Your task to perform on an android device: uninstall "Facebook Lite" Image 0: 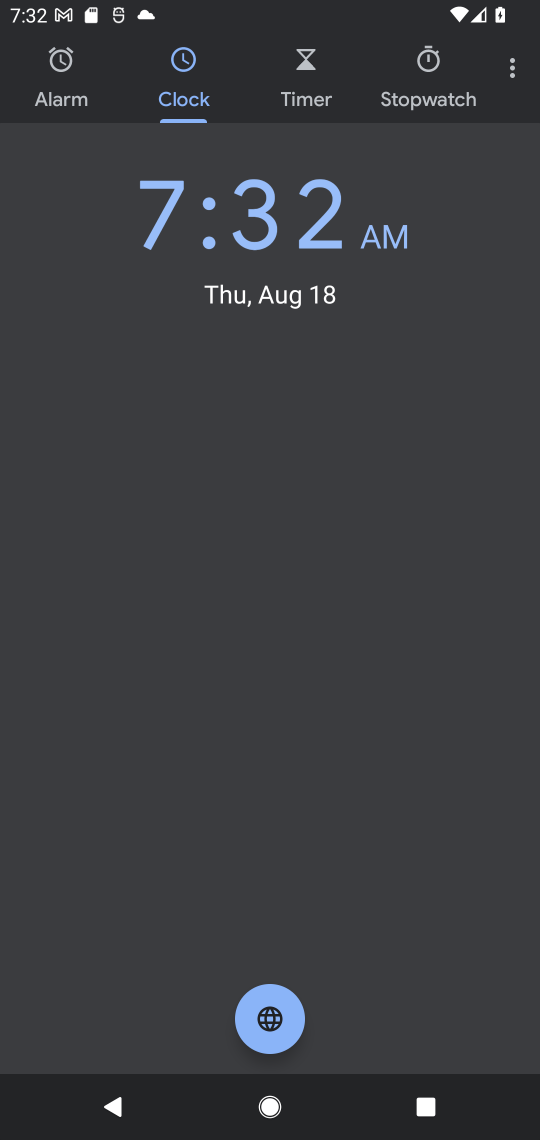
Step 0: press home button
Your task to perform on an android device: uninstall "Facebook Lite" Image 1: 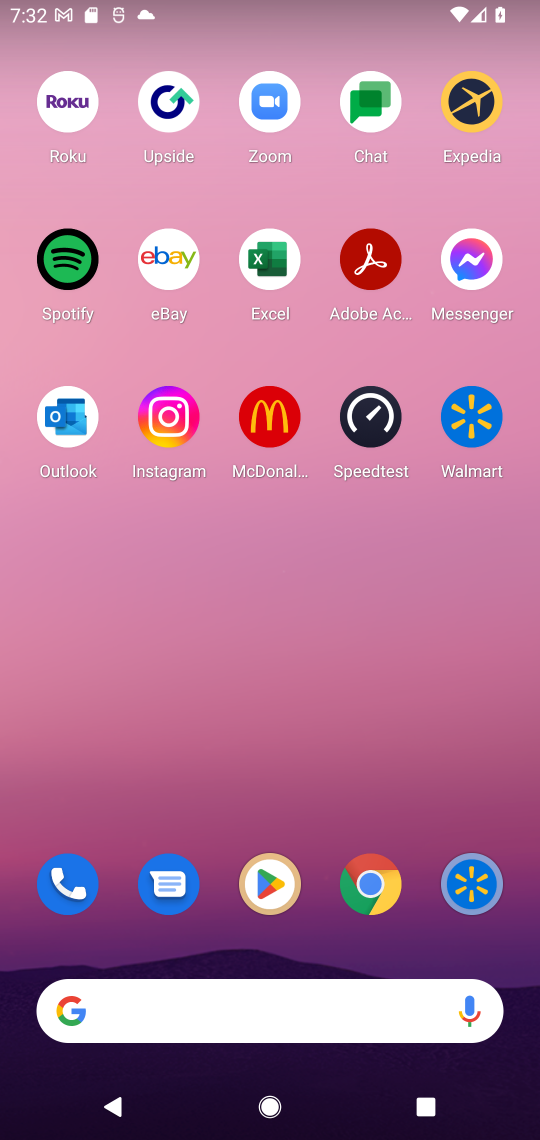
Step 1: drag from (222, 1013) to (391, 144)
Your task to perform on an android device: uninstall "Facebook Lite" Image 2: 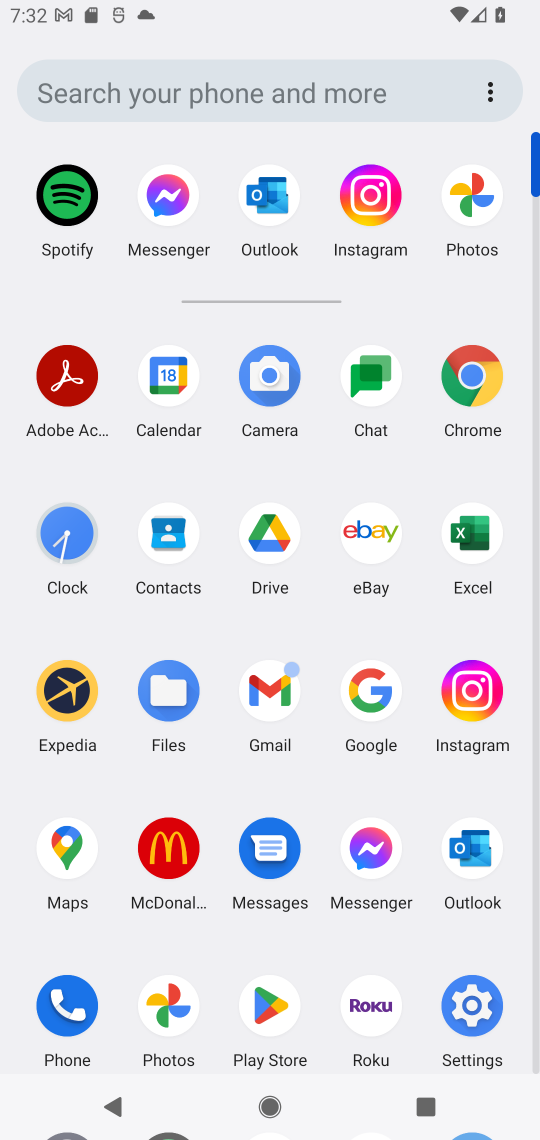
Step 2: click (277, 1010)
Your task to perform on an android device: uninstall "Facebook Lite" Image 3: 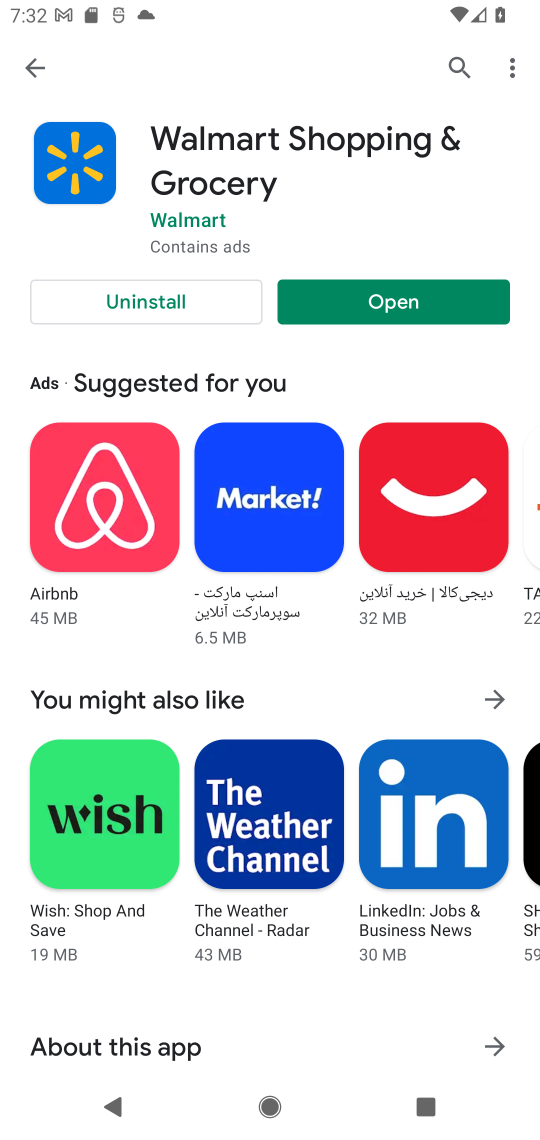
Step 3: press back button
Your task to perform on an android device: uninstall "Facebook Lite" Image 4: 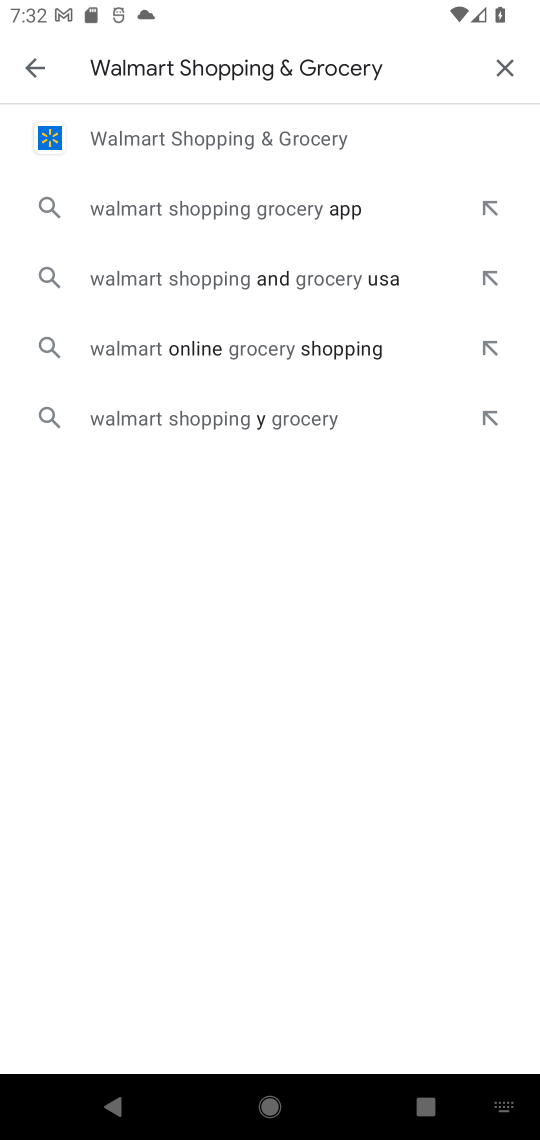
Step 4: press back button
Your task to perform on an android device: uninstall "Facebook Lite" Image 5: 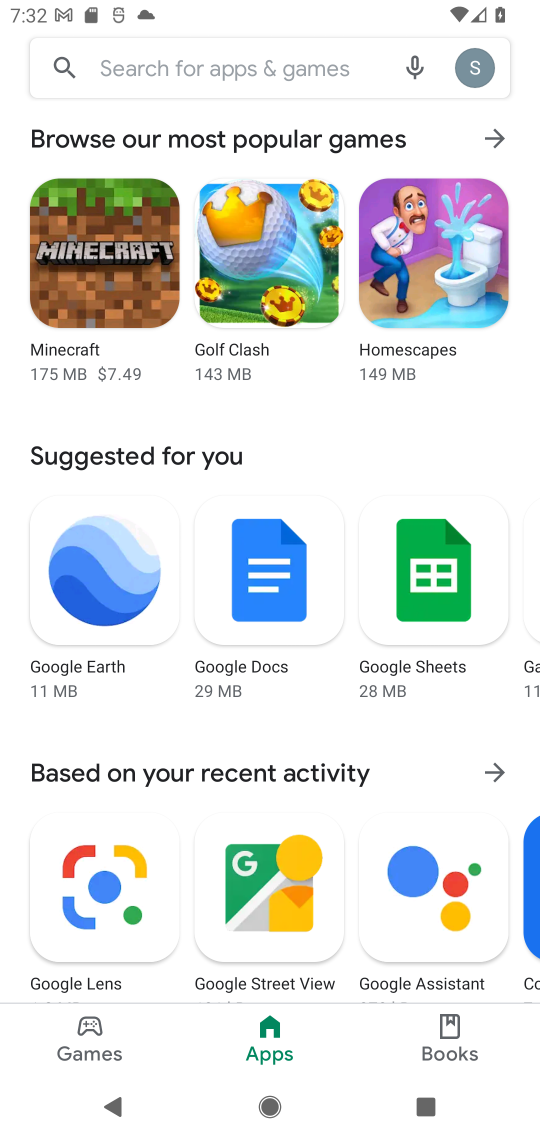
Step 5: click (257, 53)
Your task to perform on an android device: uninstall "Facebook Lite" Image 6: 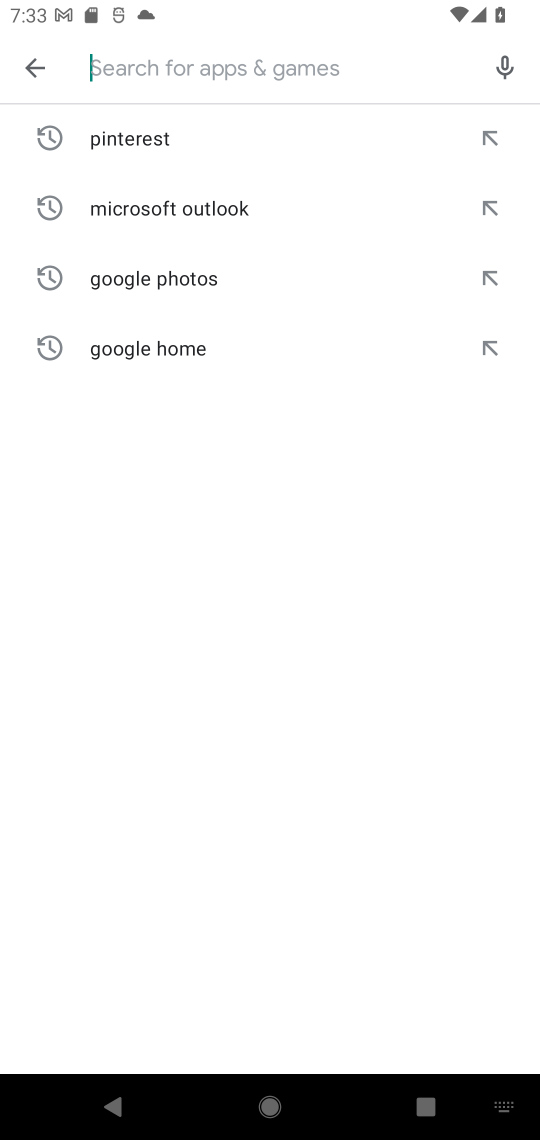
Step 6: type "Facebook Lite"
Your task to perform on an android device: uninstall "Facebook Lite" Image 7: 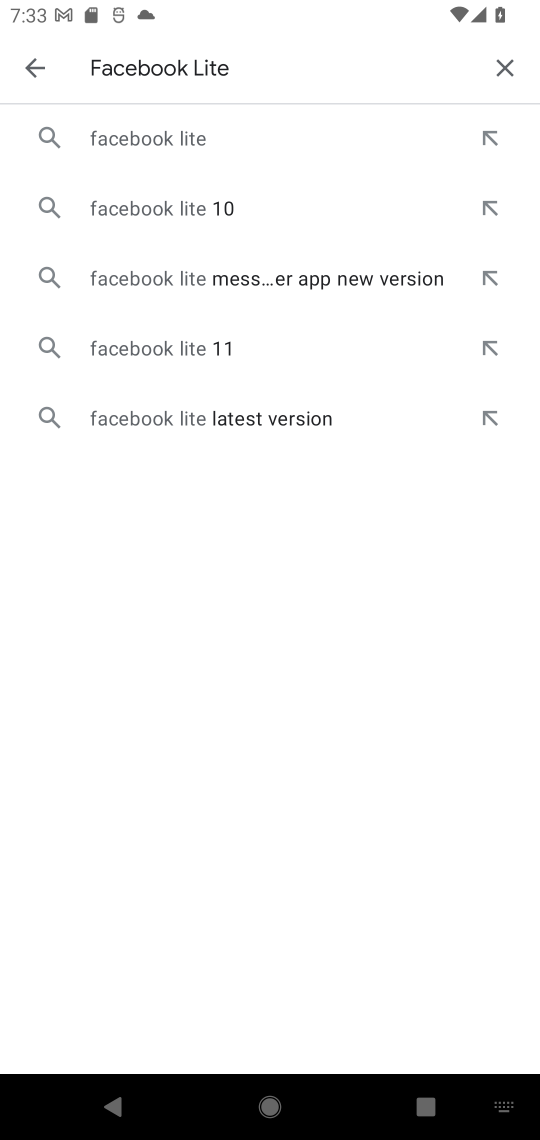
Step 7: click (147, 130)
Your task to perform on an android device: uninstall "Facebook Lite" Image 8: 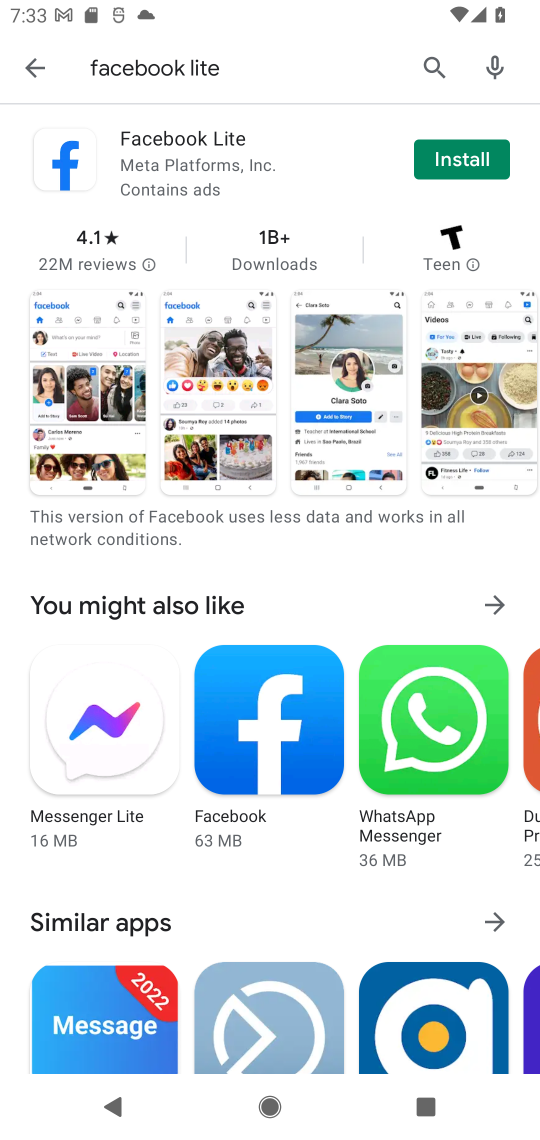
Step 8: task complete